Your task to perform on an android device: show emergency info Image 0: 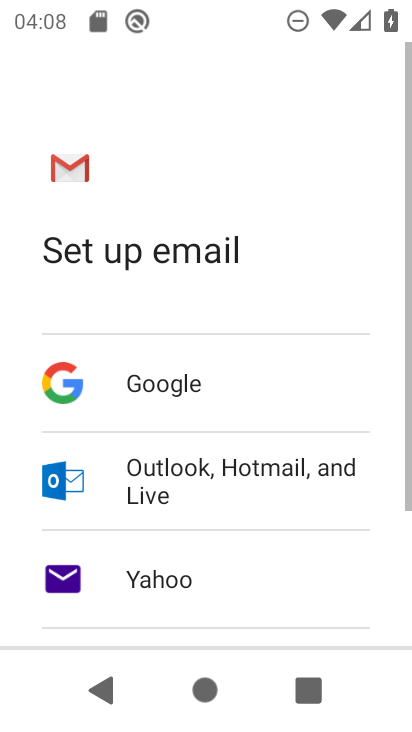
Step 0: press home button
Your task to perform on an android device: show emergency info Image 1: 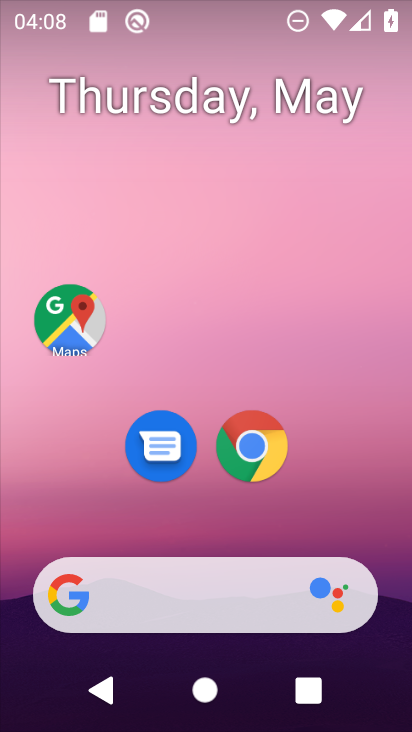
Step 1: drag from (365, 554) to (351, 4)
Your task to perform on an android device: show emergency info Image 2: 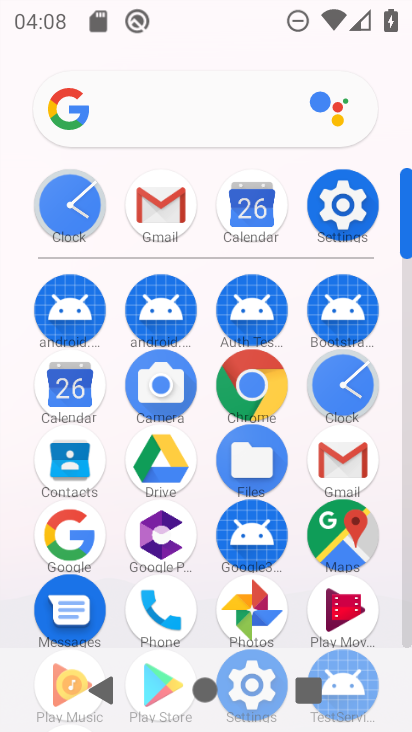
Step 2: click (332, 205)
Your task to perform on an android device: show emergency info Image 3: 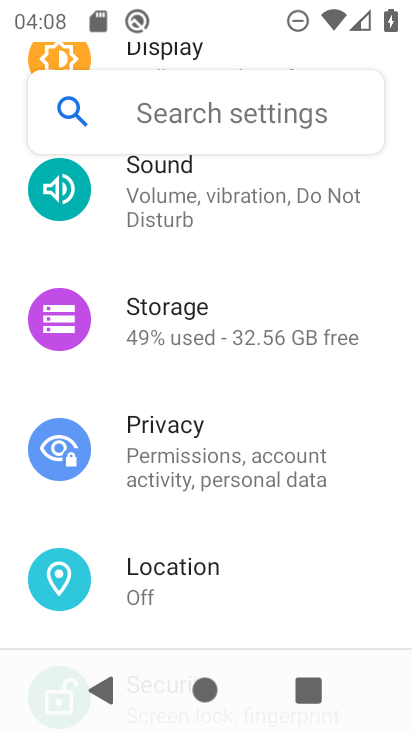
Step 3: drag from (327, 519) to (288, 86)
Your task to perform on an android device: show emergency info Image 4: 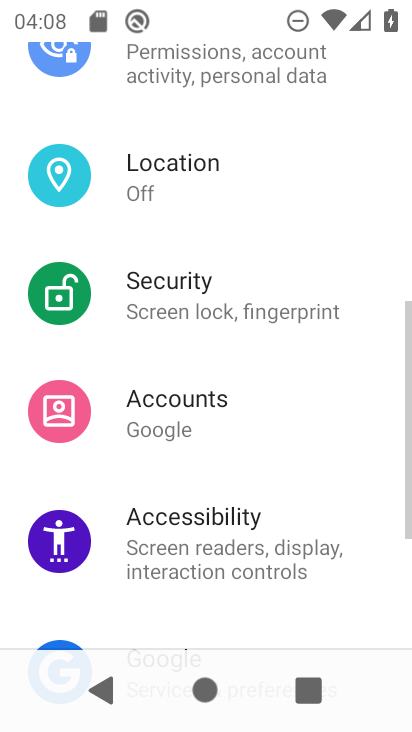
Step 4: drag from (293, 479) to (304, 54)
Your task to perform on an android device: show emergency info Image 5: 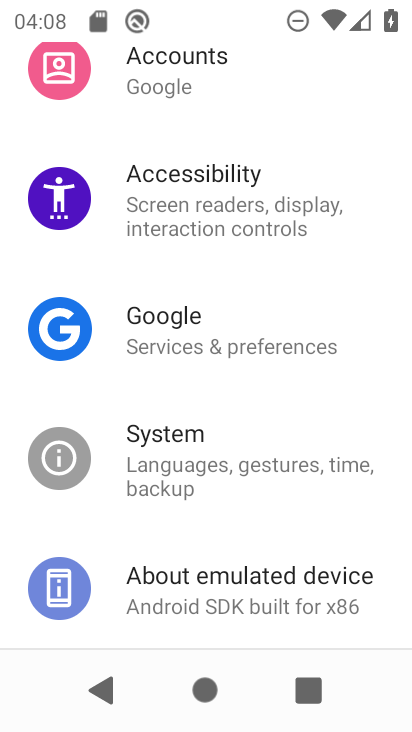
Step 5: drag from (237, 439) to (245, 77)
Your task to perform on an android device: show emergency info Image 6: 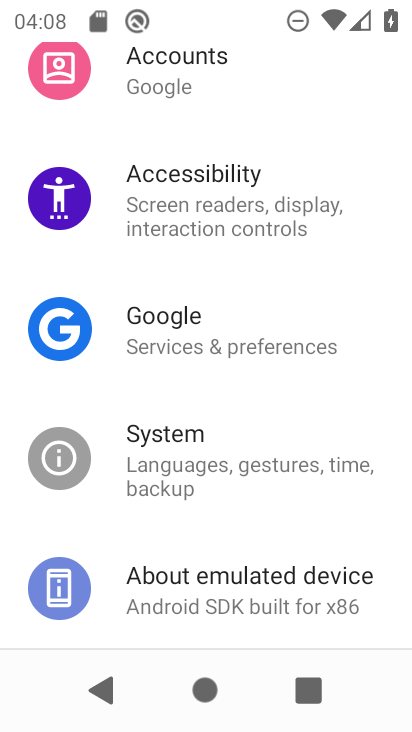
Step 6: click (212, 592)
Your task to perform on an android device: show emergency info Image 7: 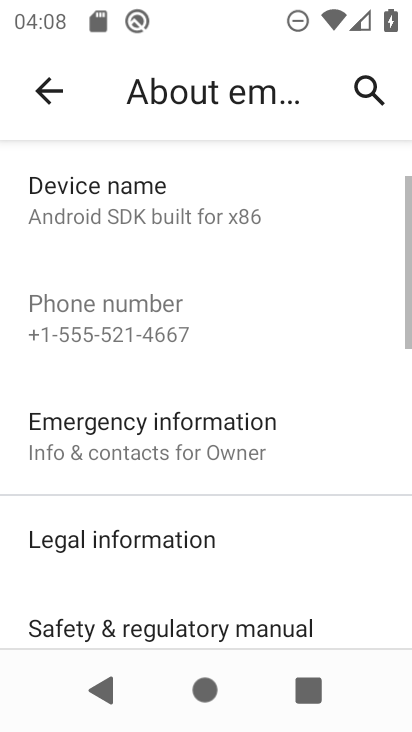
Step 7: click (159, 442)
Your task to perform on an android device: show emergency info Image 8: 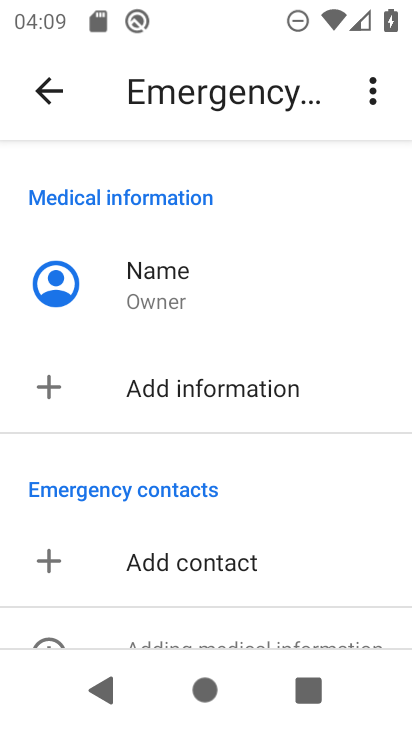
Step 8: task complete